Your task to perform on an android device: turn off airplane mode Image 0: 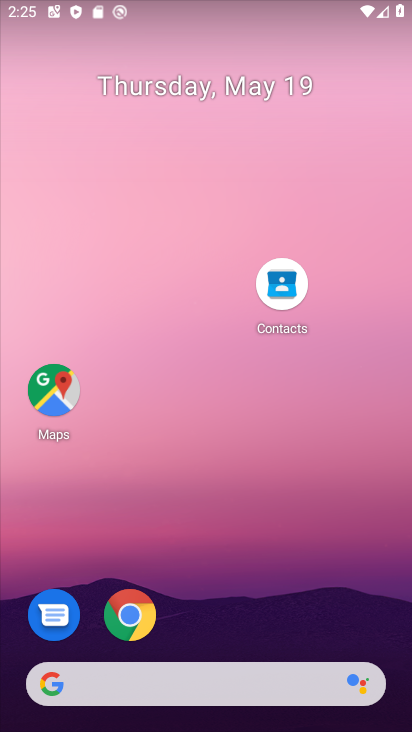
Step 0: drag from (202, 587) to (241, 292)
Your task to perform on an android device: turn off airplane mode Image 1: 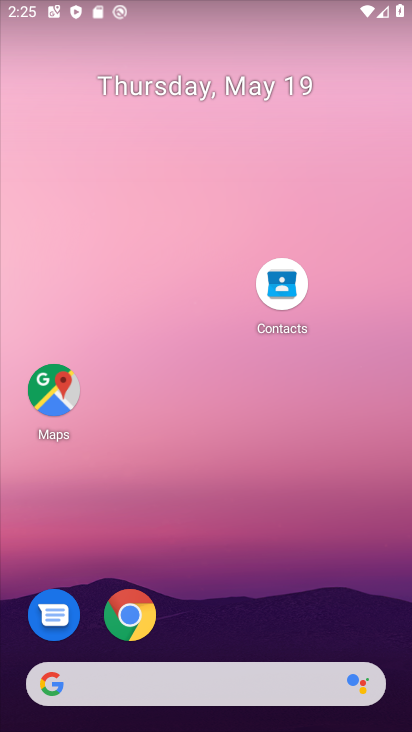
Step 1: drag from (185, 691) to (282, 136)
Your task to perform on an android device: turn off airplane mode Image 2: 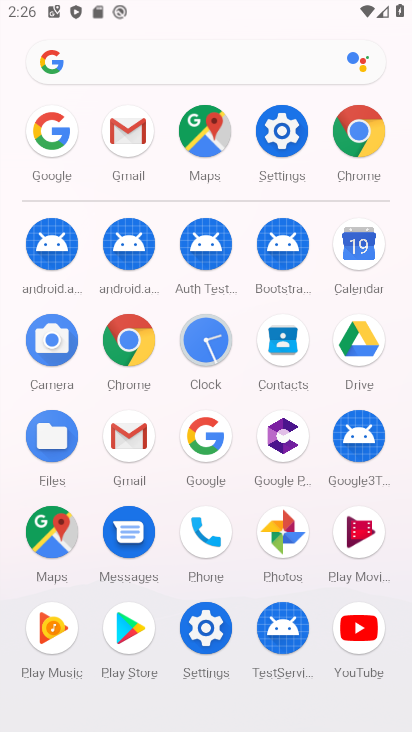
Step 2: click (290, 148)
Your task to perform on an android device: turn off airplane mode Image 3: 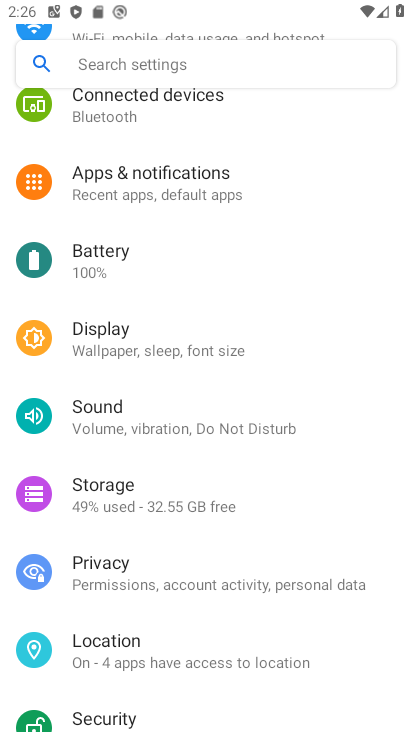
Step 3: drag from (243, 294) to (234, 586)
Your task to perform on an android device: turn off airplane mode Image 4: 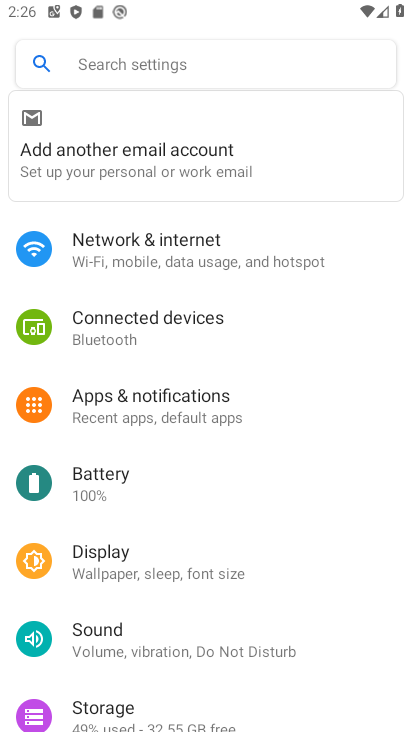
Step 4: click (230, 273)
Your task to perform on an android device: turn off airplane mode Image 5: 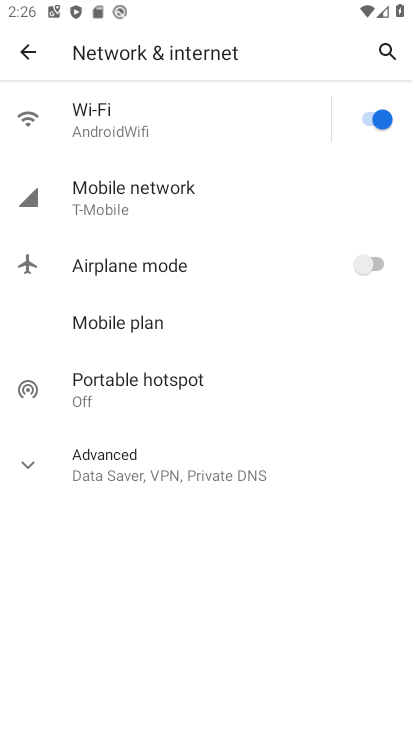
Step 5: task complete